Your task to perform on an android device: Go to Yahoo.com Image 0: 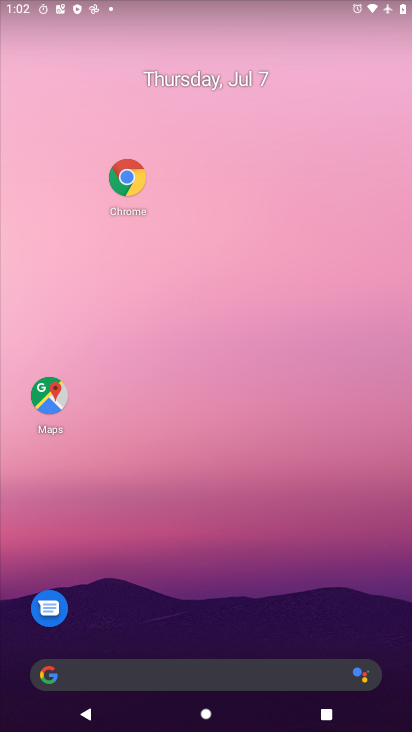
Step 0: drag from (177, 643) to (177, 292)
Your task to perform on an android device: Go to Yahoo.com Image 1: 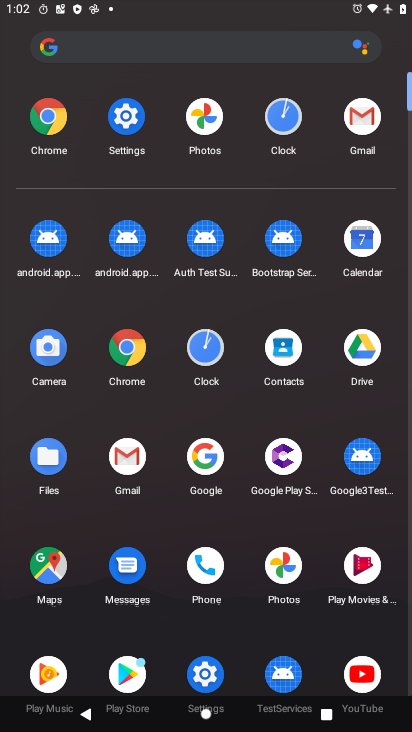
Step 1: click (122, 344)
Your task to perform on an android device: Go to Yahoo.com Image 2: 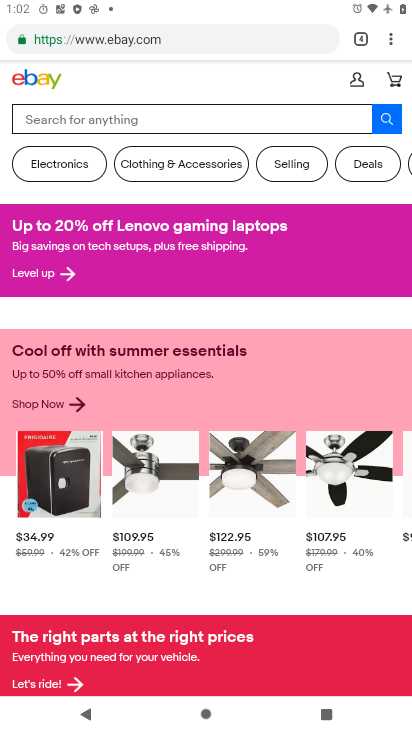
Step 2: click (356, 33)
Your task to perform on an android device: Go to Yahoo.com Image 3: 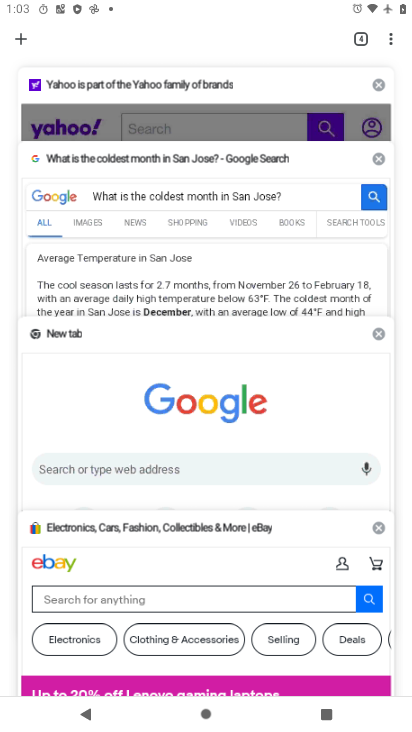
Step 3: click (279, 122)
Your task to perform on an android device: Go to Yahoo.com Image 4: 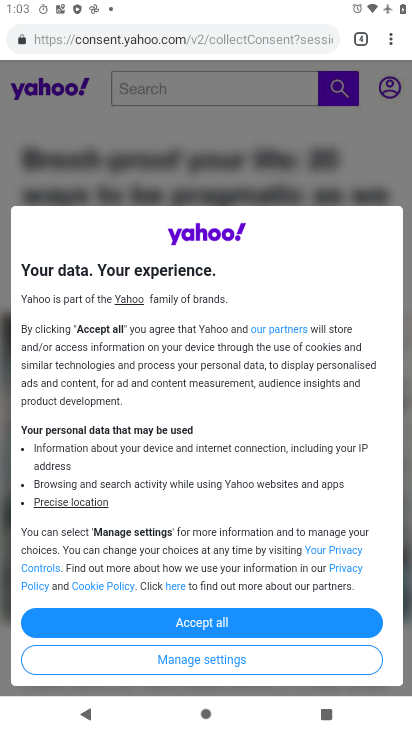
Step 4: task complete